Your task to perform on an android device: see creations saved in the google photos Image 0: 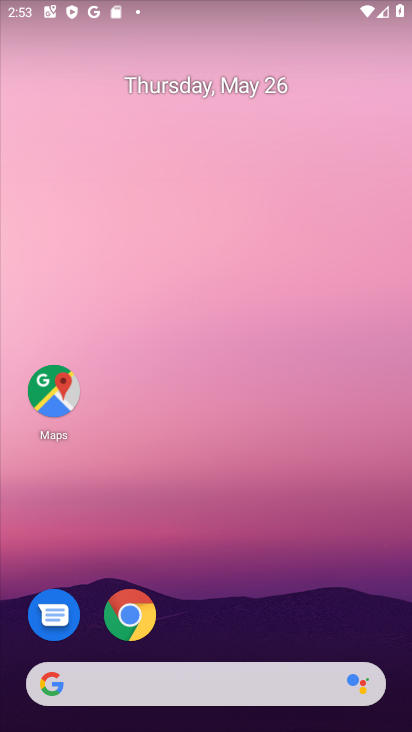
Step 0: drag from (200, 627) to (211, 28)
Your task to perform on an android device: see creations saved in the google photos Image 1: 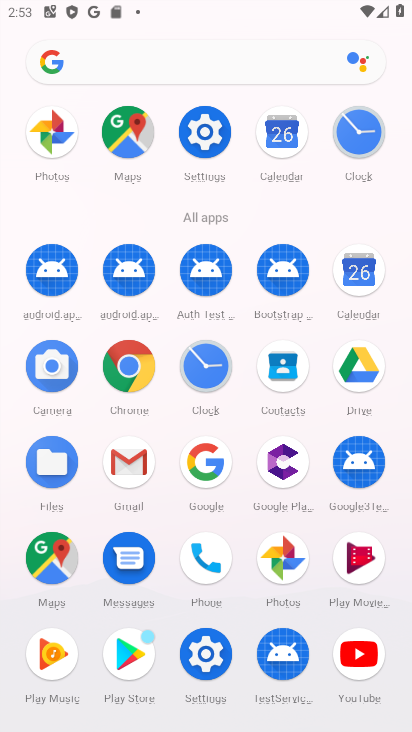
Step 1: click (287, 571)
Your task to perform on an android device: see creations saved in the google photos Image 2: 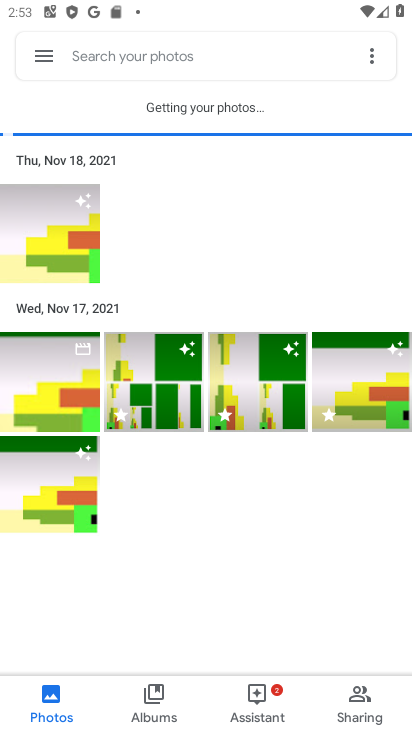
Step 2: click (129, 30)
Your task to perform on an android device: see creations saved in the google photos Image 3: 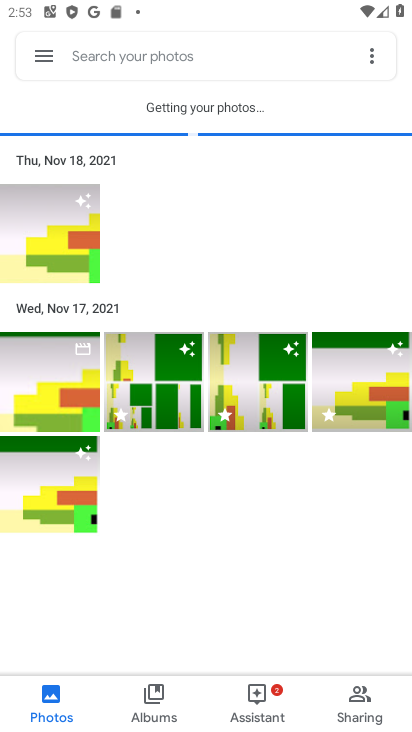
Step 3: click (129, 43)
Your task to perform on an android device: see creations saved in the google photos Image 4: 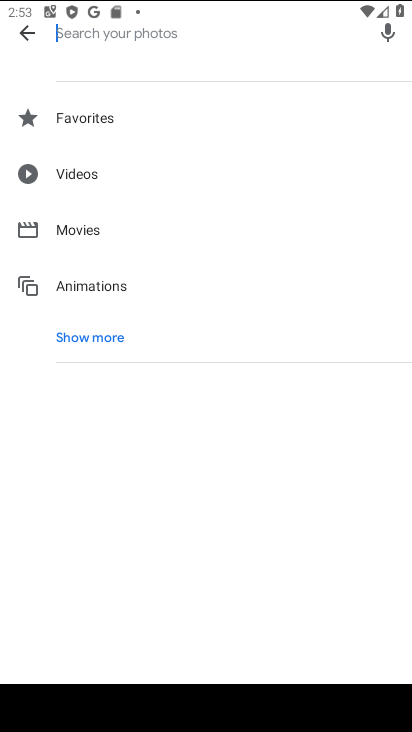
Step 4: click (108, 342)
Your task to perform on an android device: see creations saved in the google photos Image 5: 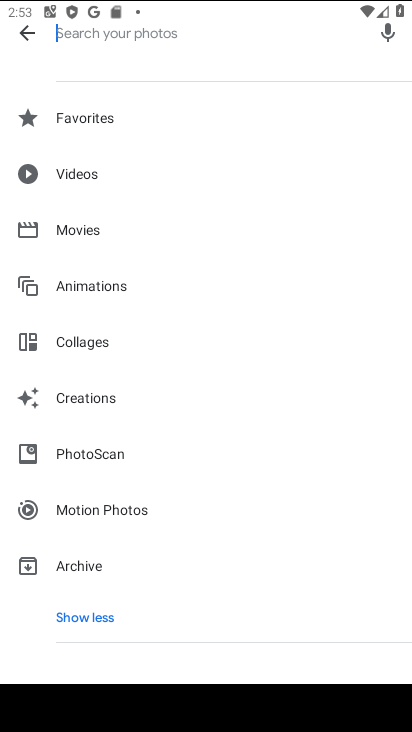
Step 5: click (96, 401)
Your task to perform on an android device: see creations saved in the google photos Image 6: 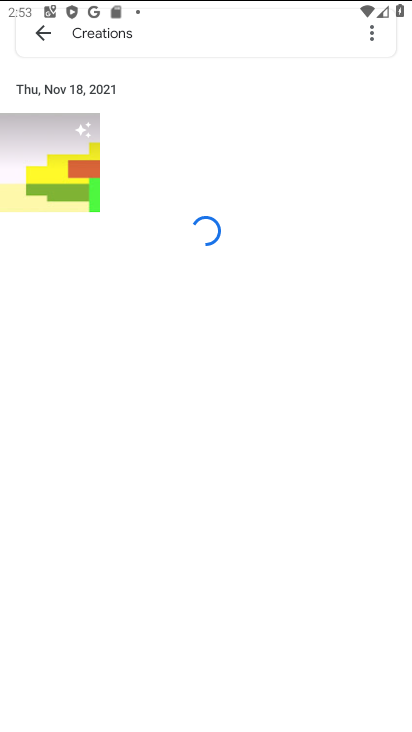
Step 6: task complete